Your task to perform on an android device: check android version Image 0: 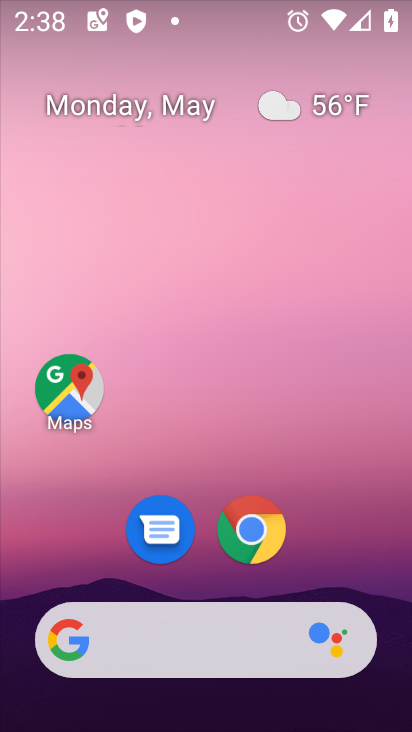
Step 0: drag from (327, 574) to (331, 140)
Your task to perform on an android device: check android version Image 1: 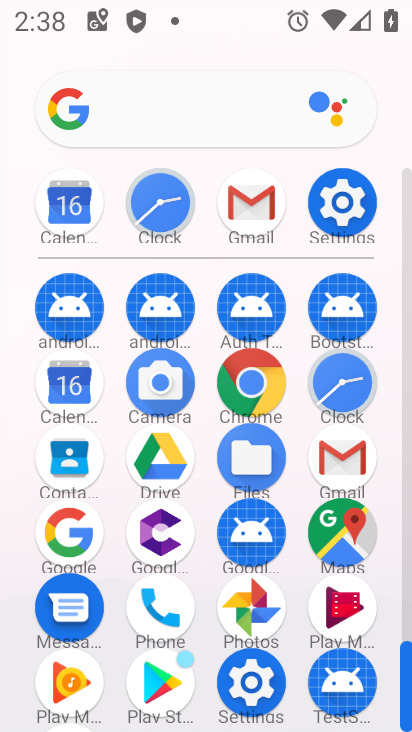
Step 1: click (335, 212)
Your task to perform on an android device: check android version Image 2: 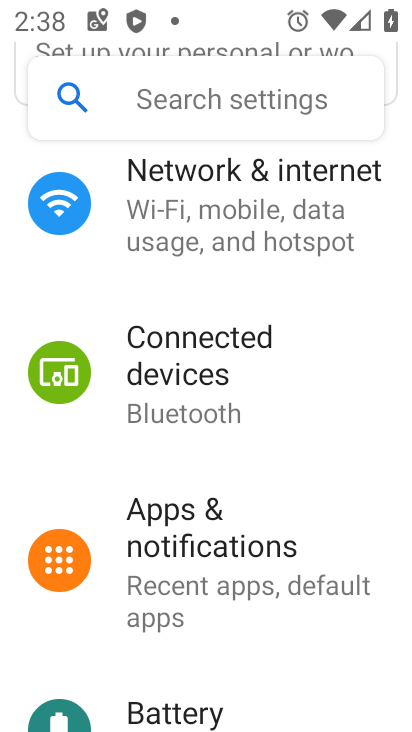
Step 2: drag from (196, 505) to (266, 238)
Your task to perform on an android device: check android version Image 3: 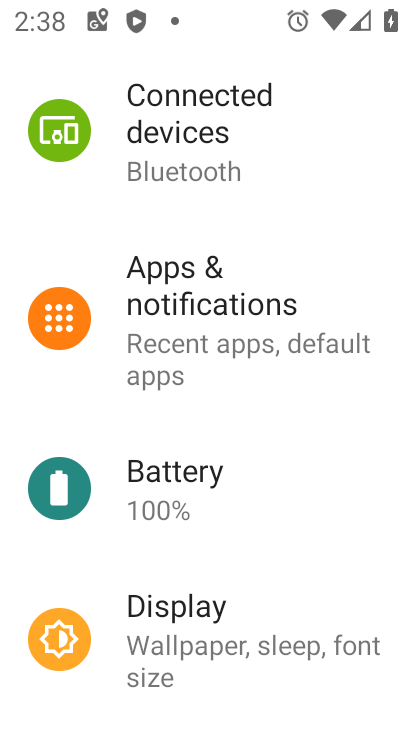
Step 3: drag from (215, 619) to (290, 351)
Your task to perform on an android device: check android version Image 4: 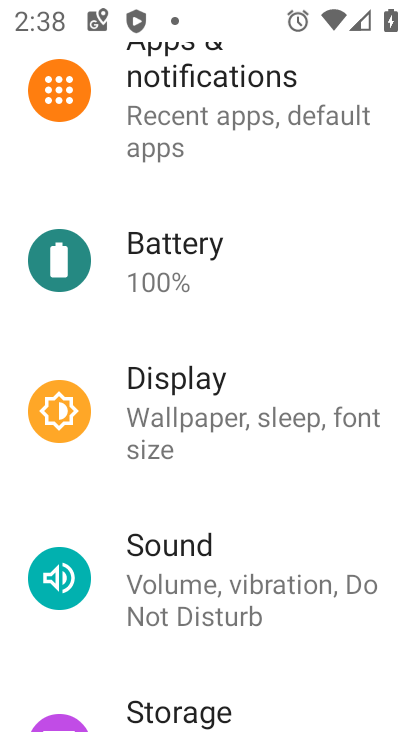
Step 4: drag from (224, 572) to (292, 313)
Your task to perform on an android device: check android version Image 5: 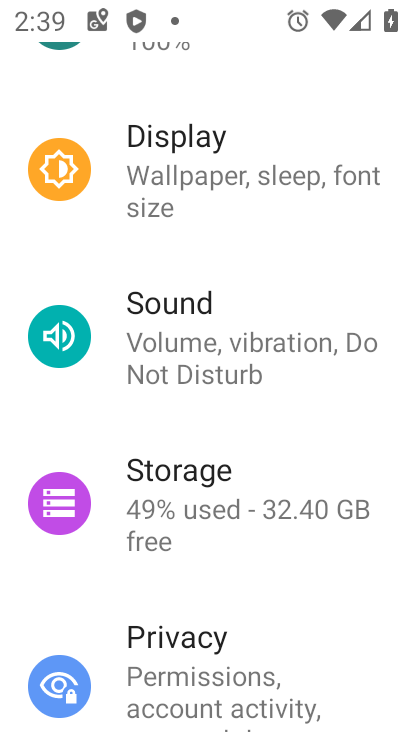
Step 5: drag from (187, 557) to (273, 305)
Your task to perform on an android device: check android version Image 6: 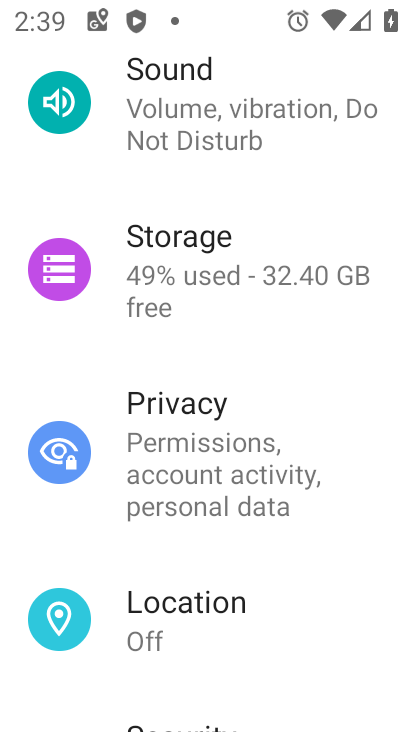
Step 6: drag from (163, 660) to (254, 370)
Your task to perform on an android device: check android version Image 7: 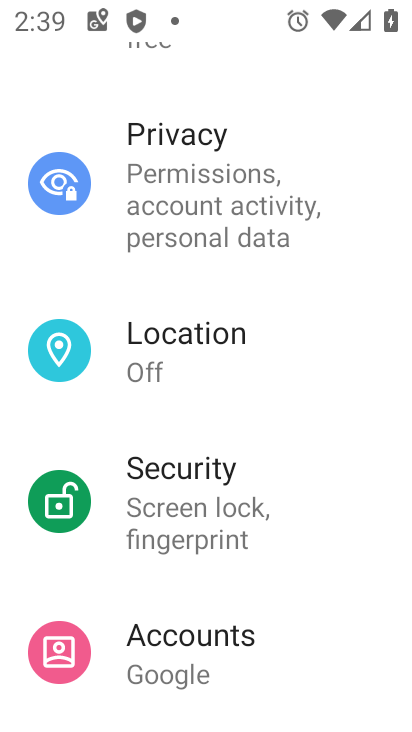
Step 7: drag from (232, 639) to (296, 418)
Your task to perform on an android device: check android version Image 8: 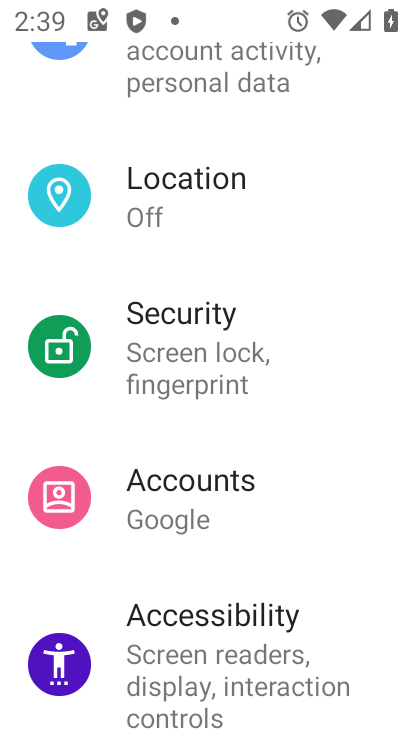
Step 8: drag from (212, 607) to (261, 417)
Your task to perform on an android device: check android version Image 9: 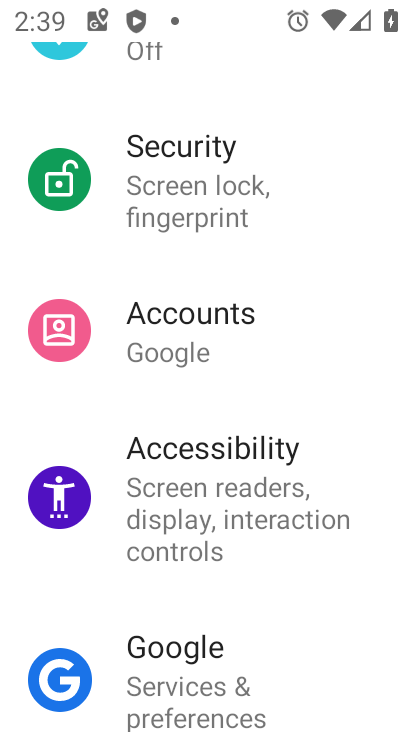
Step 9: drag from (196, 653) to (251, 365)
Your task to perform on an android device: check android version Image 10: 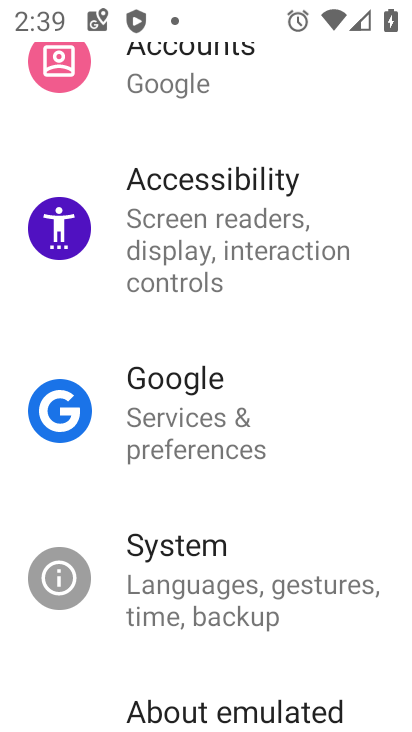
Step 10: drag from (183, 613) to (250, 258)
Your task to perform on an android device: check android version Image 11: 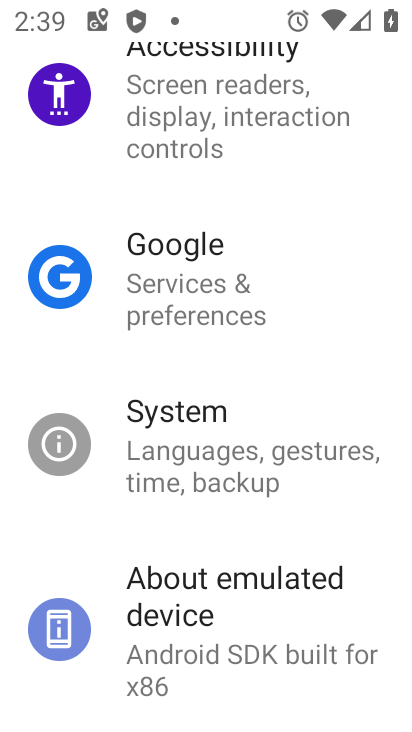
Step 11: click (184, 629)
Your task to perform on an android device: check android version Image 12: 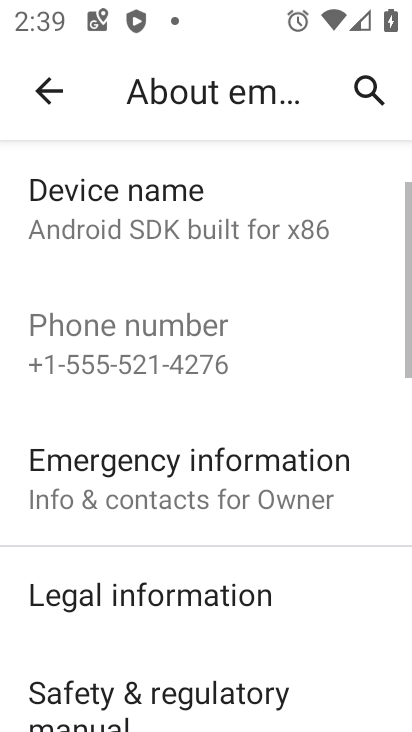
Step 12: drag from (115, 533) to (185, 240)
Your task to perform on an android device: check android version Image 13: 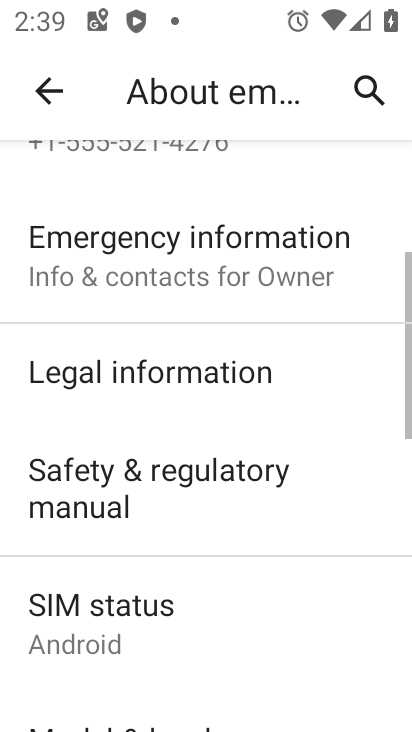
Step 13: drag from (103, 580) to (178, 341)
Your task to perform on an android device: check android version Image 14: 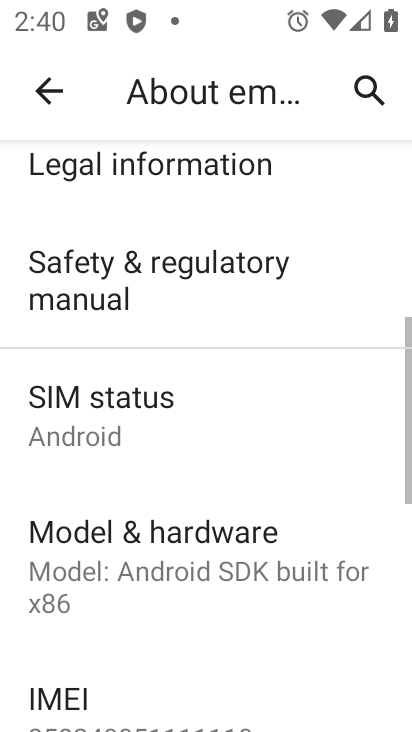
Step 14: drag from (102, 599) to (138, 357)
Your task to perform on an android device: check android version Image 15: 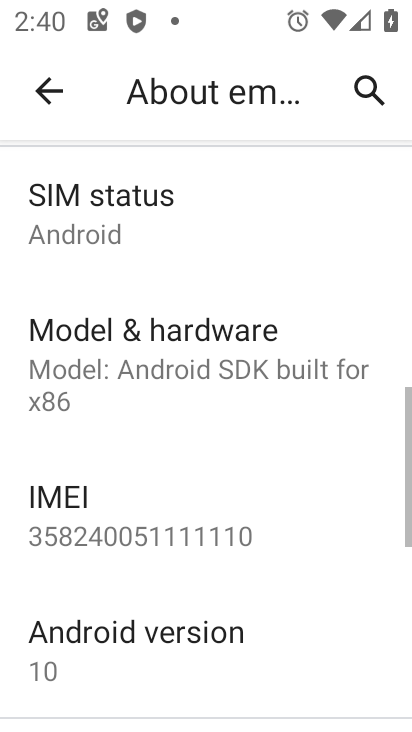
Step 15: click (87, 657)
Your task to perform on an android device: check android version Image 16: 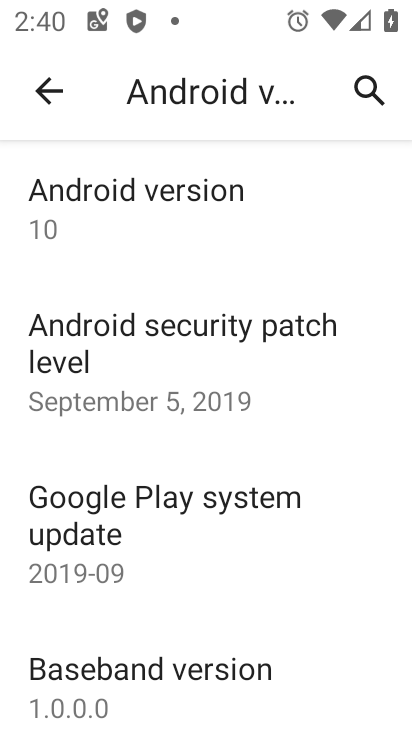
Step 16: click (142, 219)
Your task to perform on an android device: check android version Image 17: 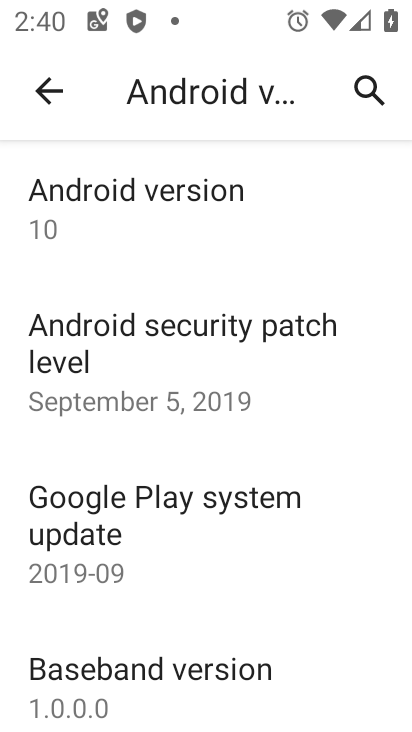
Step 17: task complete